Your task to perform on an android device: see sites visited before in the chrome app Image 0: 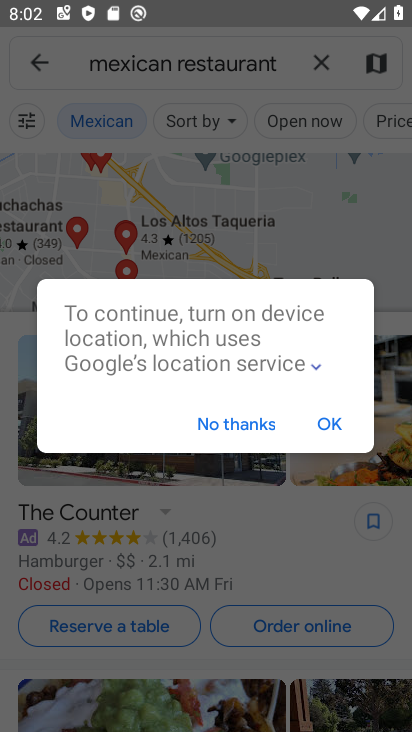
Step 0: press home button
Your task to perform on an android device: see sites visited before in the chrome app Image 1: 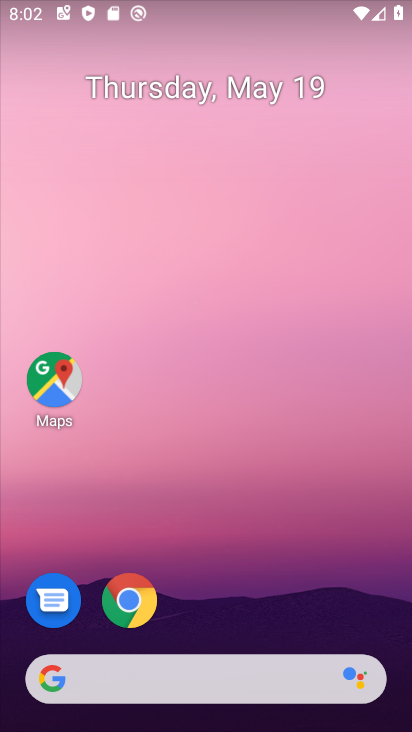
Step 1: click (130, 607)
Your task to perform on an android device: see sites visited before in the chrome app Image 2: 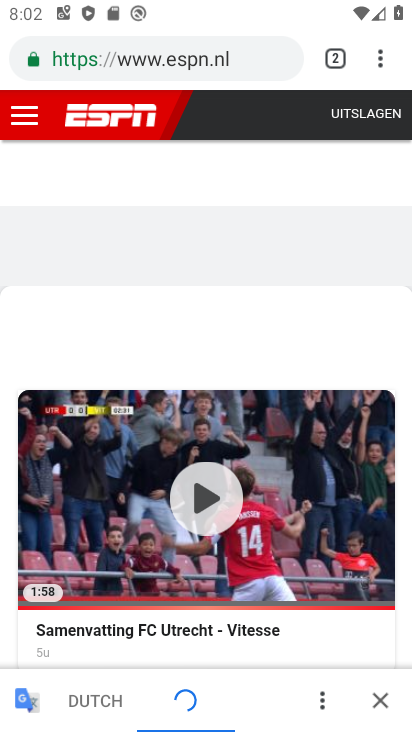
Step 2: task complete